Your task to perform on an android device: turn on the 24-hour format for clock Image 0: 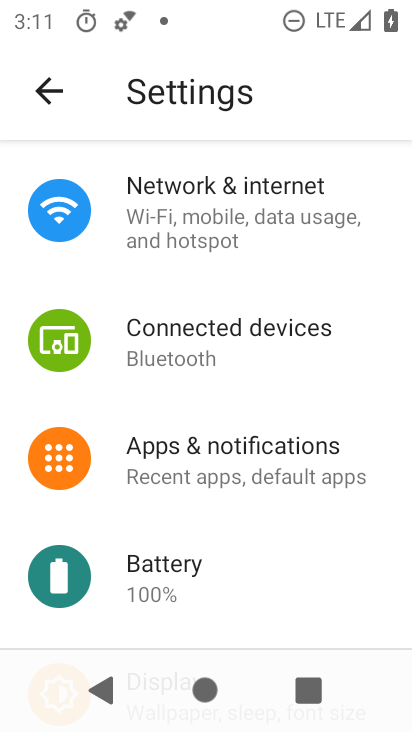
Step 0: press home button
Your task to perform on an android device: turn on the 24-hour format for clock Image 1: 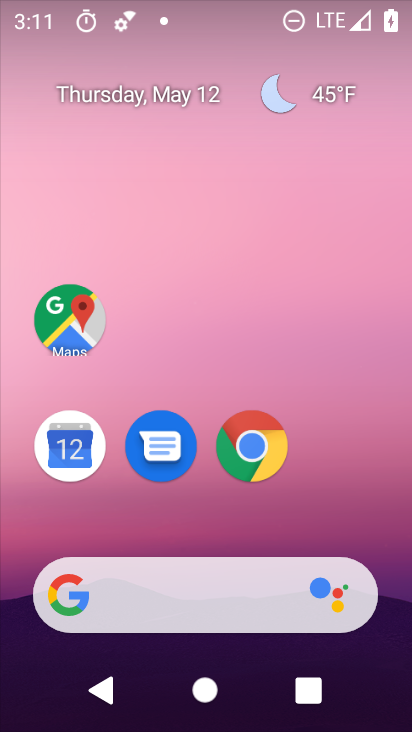
Step 1: drag from (211, 538) to (228, 243)
Your task to perform on an android device: turn on the 24-hour format for clock Image 2: 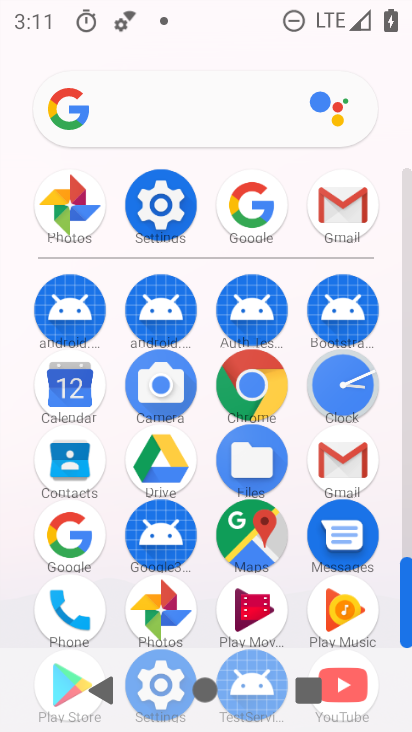
Step 2: click (335, 407)
Your task to perform on an android device: turn on the 24-hour format for clock Image 3: 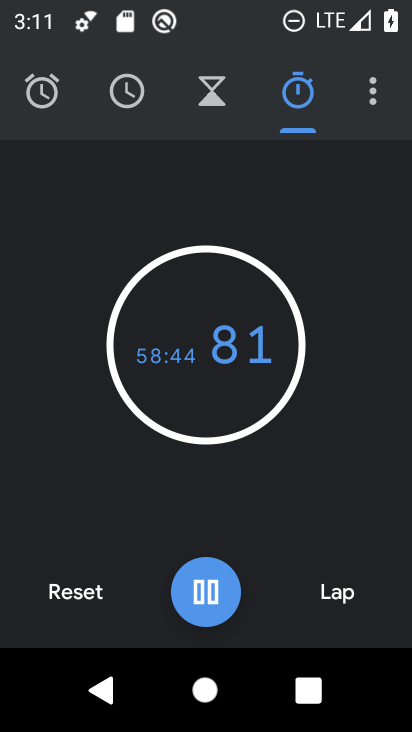
Step 3: click (368, 101)
Your task to perform on an android device: turn on the 24-hour format for clock Image 4: 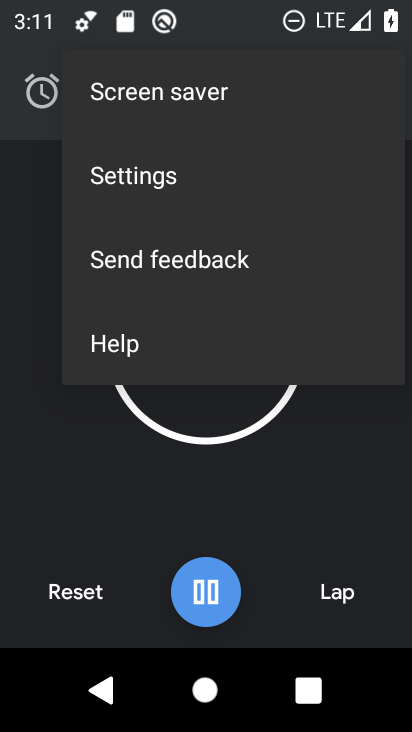
Step 4: click (152, 190)
Your task to perform on an android device: turn on the 24-hour format for clock Image 5: 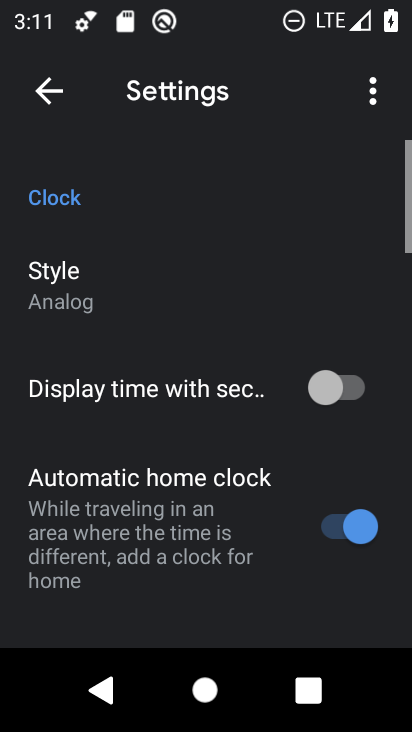
Step 5: drag from (175, 539) to (217, 190)
Your task to perform on an android device: turn on the 24-hour format for clock Image 6: 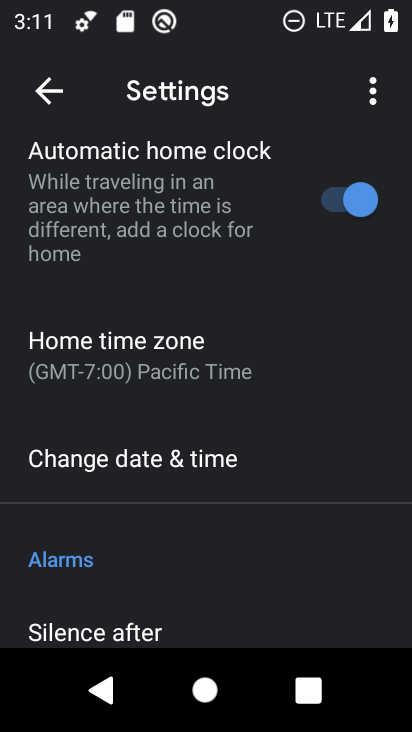
Step 6: click (182, 451)
Your task to perform on an android device: turn on the 24-hour format for clock Image 7: 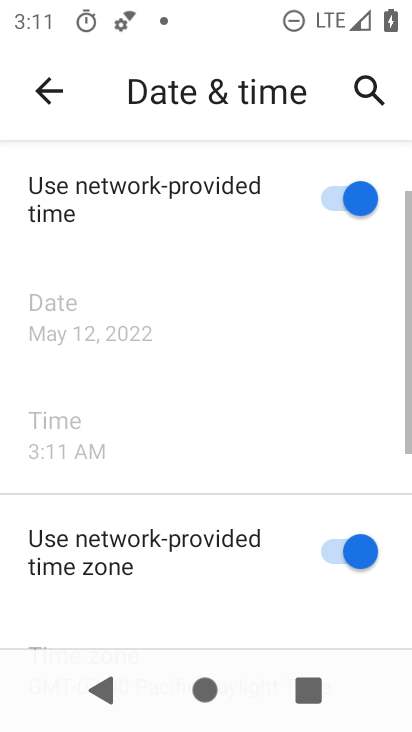
Step 7: drag from (219, 596) to (243, 292)
Your task to perform on an android device: turn on the 24-hour format for clock Image 8: 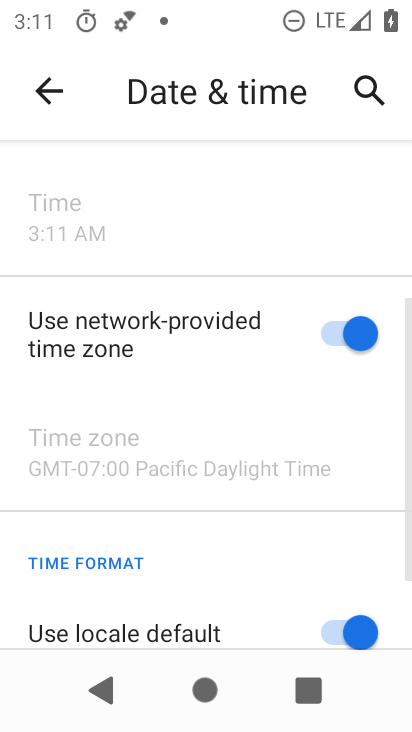
Step 8: drag from (201, 552) to (237, 301)
Your task to perform on an android device: turn on the 24-hour format for clock Image 9: 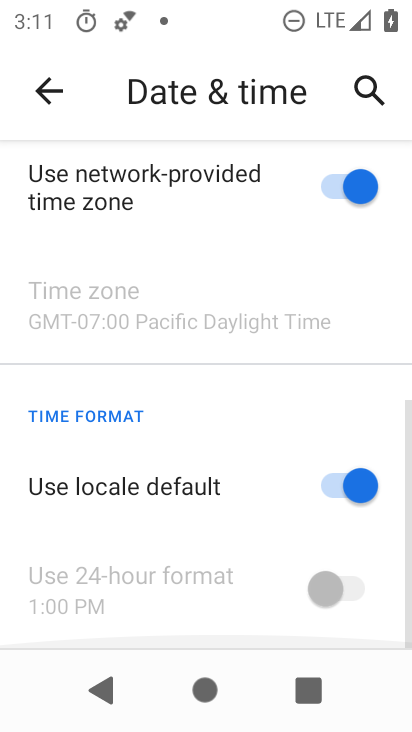
Step 9: drag from (212, 496) to (214, 454)
Your task to perform on an android device: turn on the 24-hour format for clock Image 10: 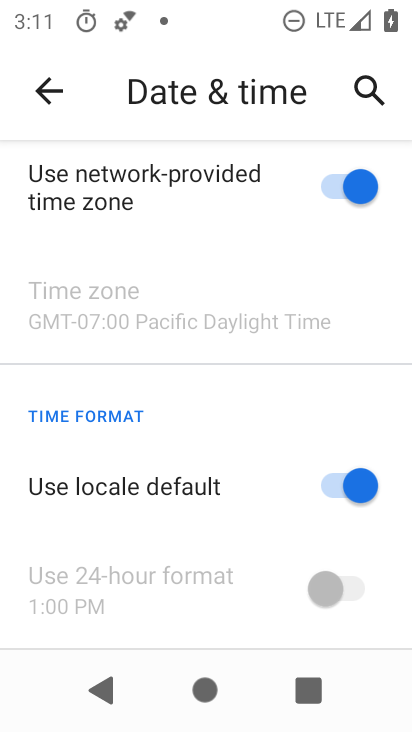
Step 10: click (324, 499)
Your task to perform on an android device: turn on the 24-hour format for clock Image 11: 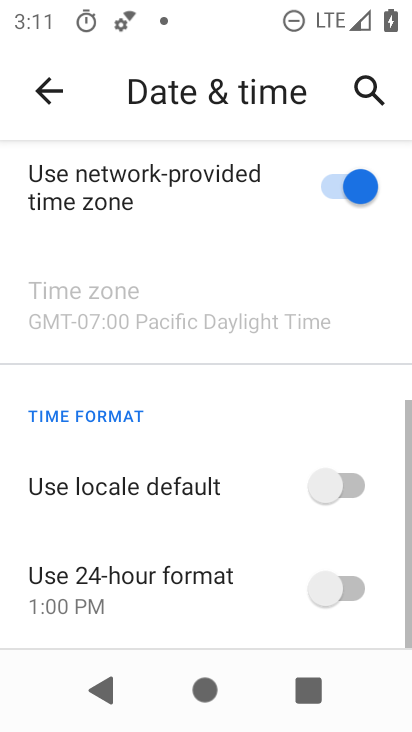
Step 11: click (344, 592)
Your task to perform on an android device: turn on the 24-hour format for clock Image 12: 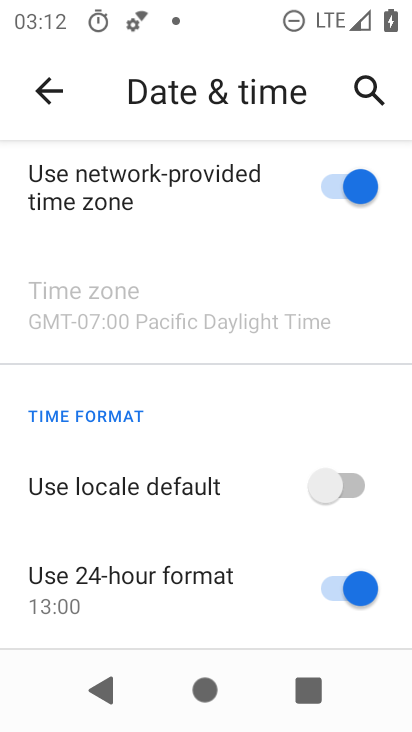
Step 12: task complete